Your task to perform on an android device: empty trash in google photos Image 0: 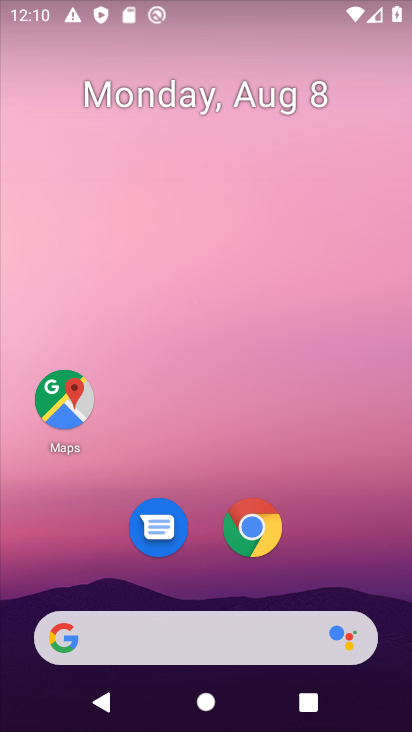
Step 0: drag from (247, 446) to (268, 8)
Your task to perform on an android device: empty trash in google photos Image 1: 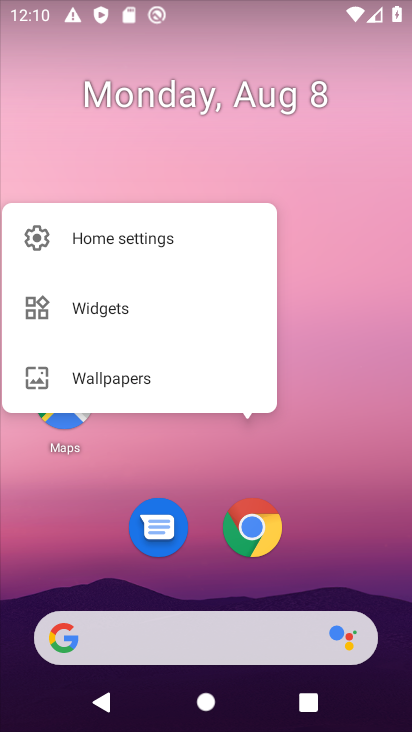
Step 1: click (335, 383)
Your task to perform on an android device: empty trash in google photos Image 2: 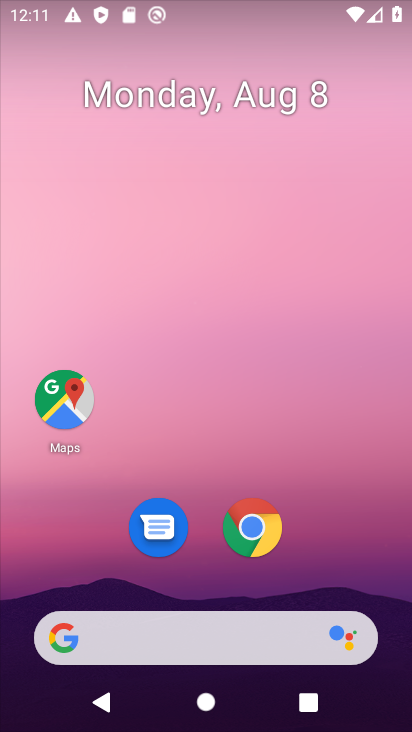
Step 2: drag from (330, 415) to (328, 43)
Your task to perform on an android device: empty trash in google photos Image 3: 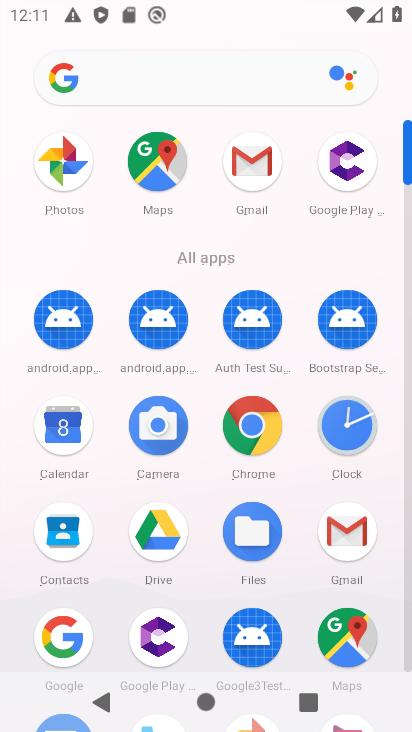
Step 3: click (71, 160)
Your task to perform on an android device: empty trash in google photos Image 4: 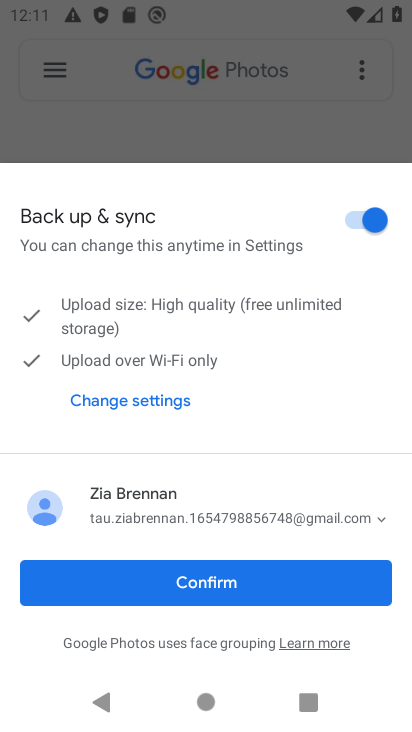
Step 4: click (61, 79)
Your task to perform on an android device: empty trash in google photos Image 5: 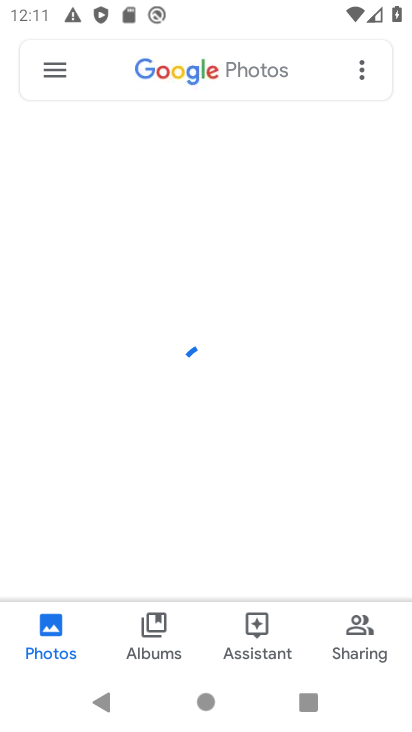
Step 5: click (61, 79)
Your task to perform on an android device: empty trash in google photos Image 6: 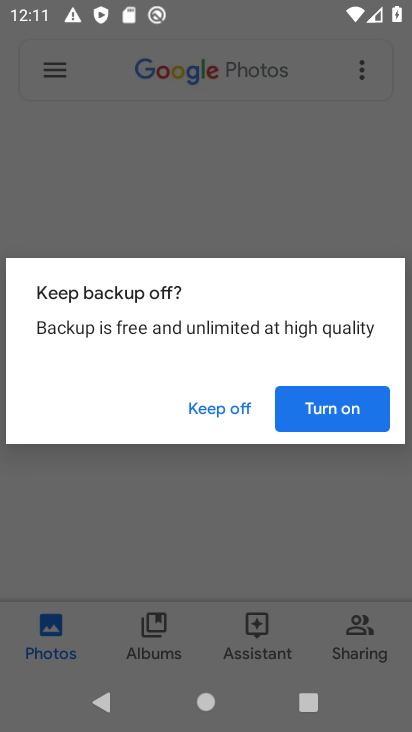
Step 6: click (231, 410)
Your task to perform on an android device: empty trash in google photos Image 7: 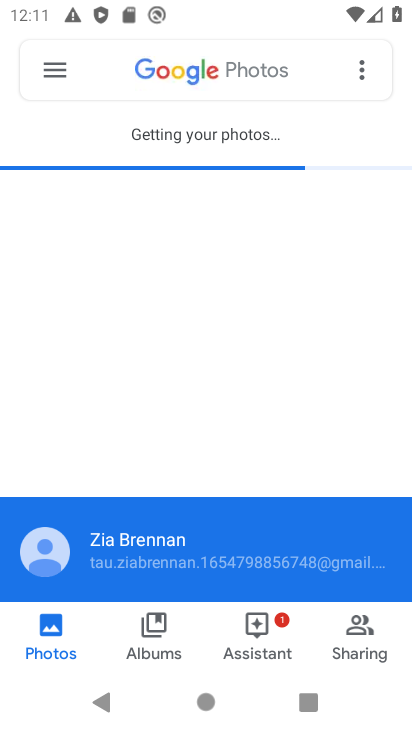
Step 7: click (49, 69)
Your task to perform on an android device: empty trash in google photos Image 8: 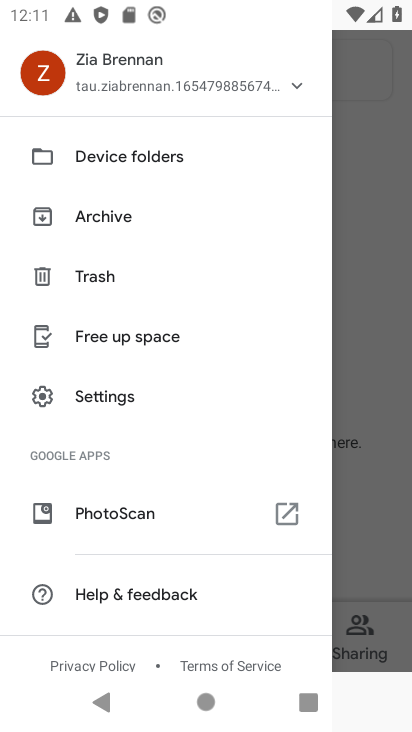
Step 8: click (99, 272)
Your task to perform on an android device: empty trash in google photos Image 9: 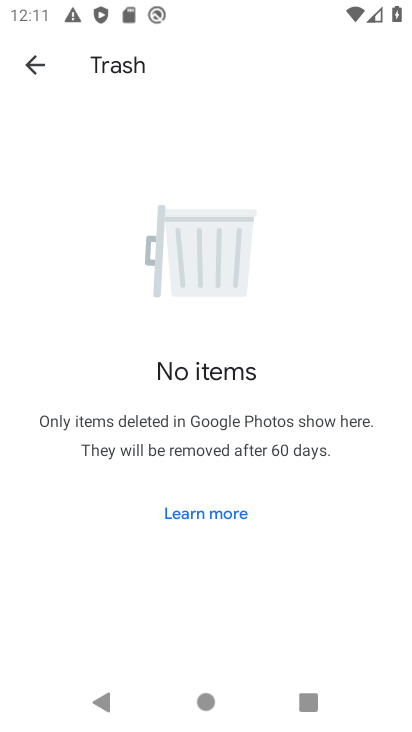
Step 9: task complete